Your task to perform on an android device: Open Google Chrome and click the shortcut for Amazon.com Image 0: 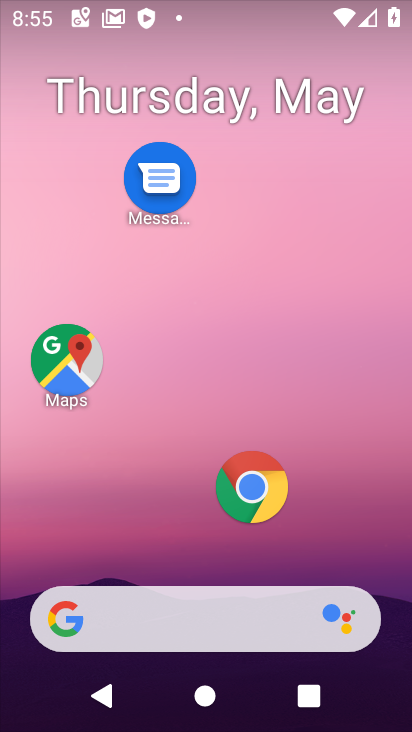
Step 0: click (262, 490)
Your task to perform on an android device: Open Google Chrome and click the shortcut for Amazon.com Image 1: 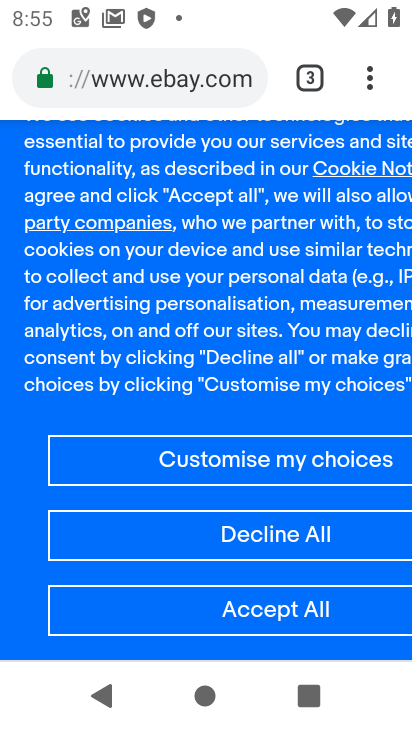
Step 1: click (321, 77)
Your task to perform on an android device: Open Google Chrome and click the shortcut for Amazon.com Image 2: 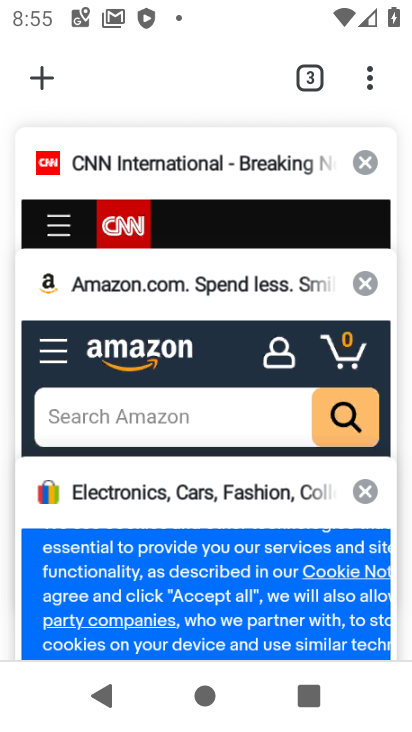
Step 2: click (34, 78)
Your task to perform on an android device: Open Google Chrome and click the shortcut for Amazon.com Image 3: 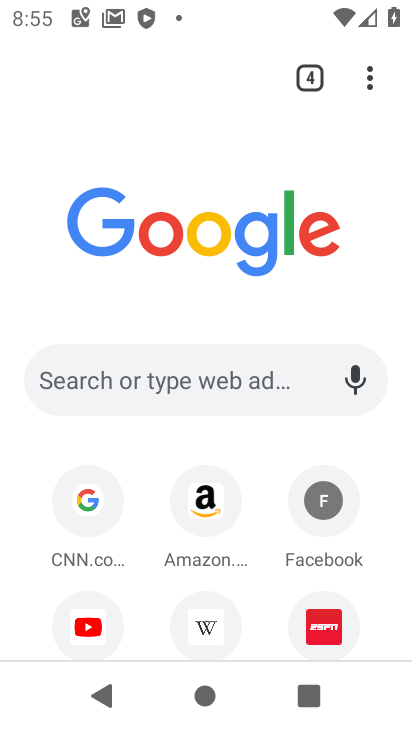
Step 3: click (210, 495)
Your task to perform on an android device: Open Google Chrome and click the shortcut for Amazon.com Image 4: 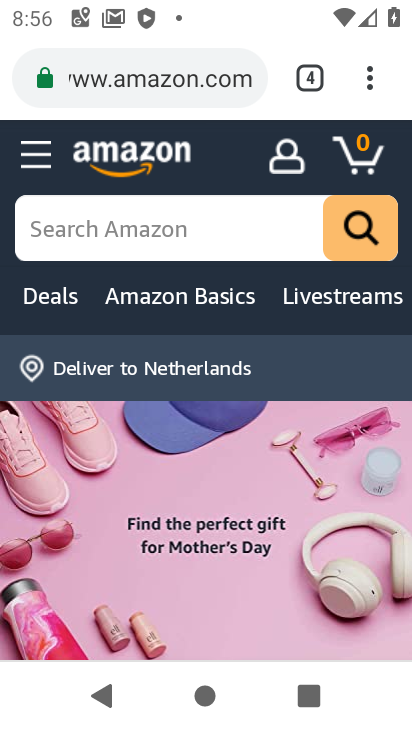
Step 4: task complete